Your task to perform on an android device: Go to Google Image 0: 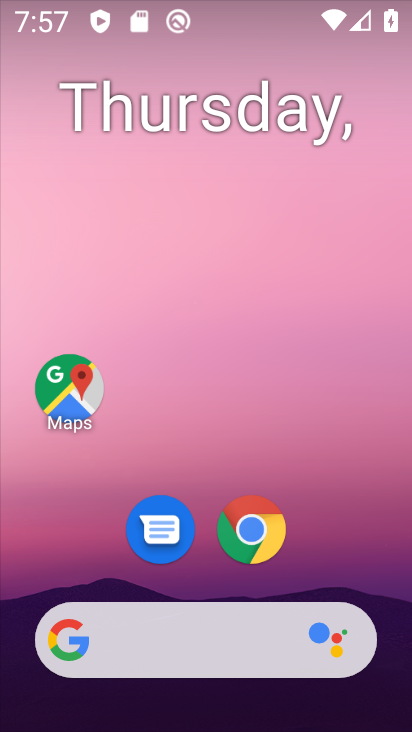
Step 0: drag from (212, 557) to (245, 90)
Your task to perform on an android device: Go to Google Image 1: 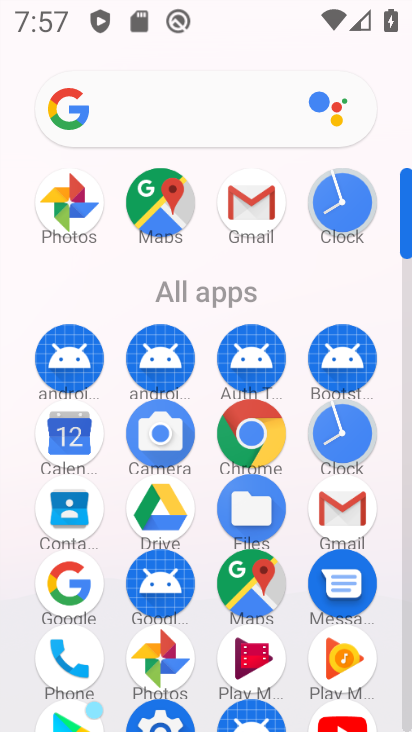
Step 1: click (70, 584)
Your task to perform on an android device: Go to Google Image 2: 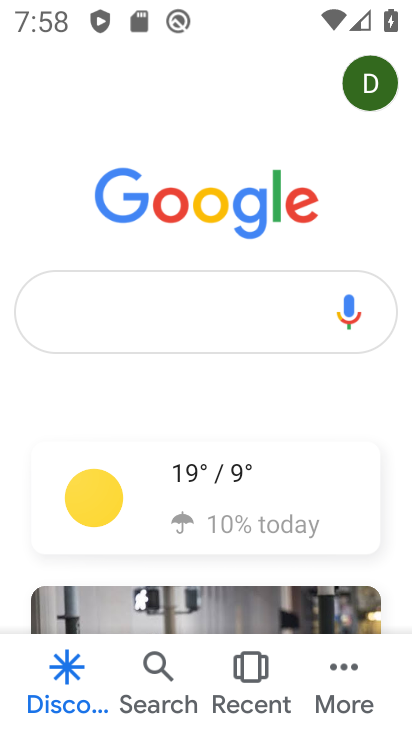
Step 2: task complete